Your task to perform on an android device: turn notification dots on Image 0: 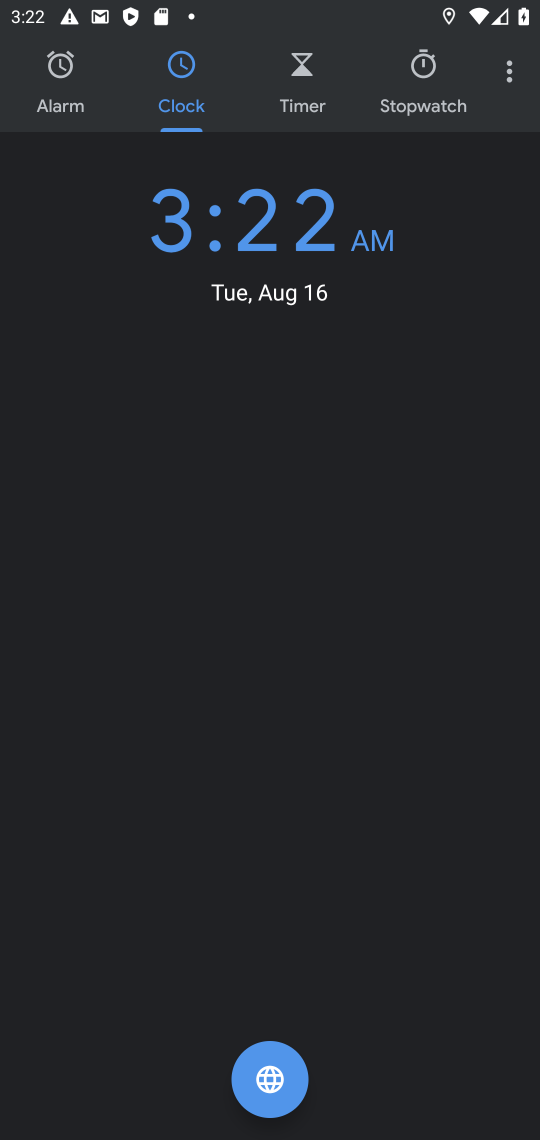
Step 0: press home button
Your task to perform on an android device: turn notification dots on Image 1: 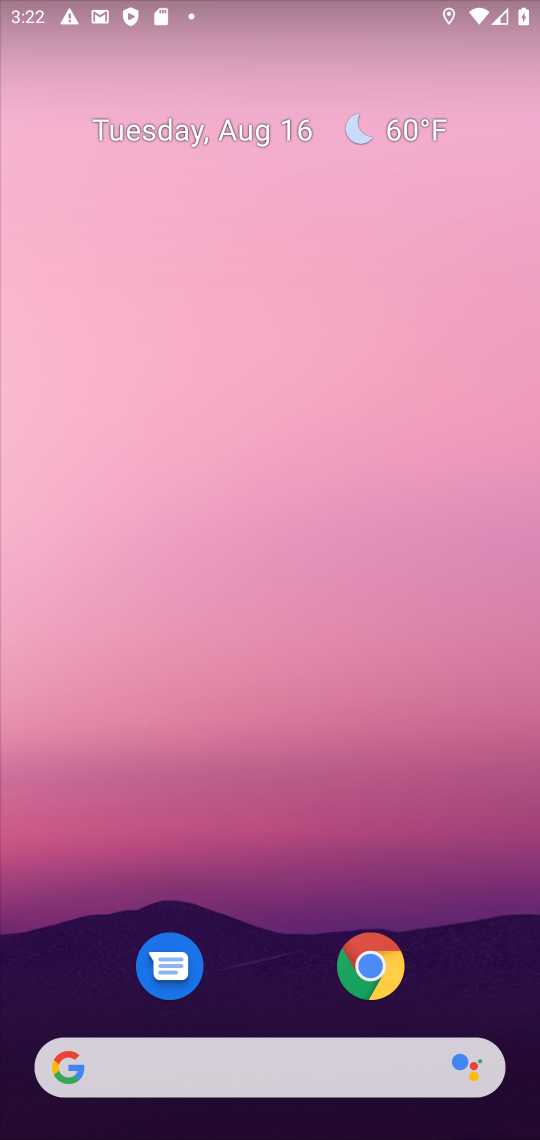
Step 1: drag from (50, 1118) to (536, 875)
Your task to perform on an android device: turn notification dots on Image 2: 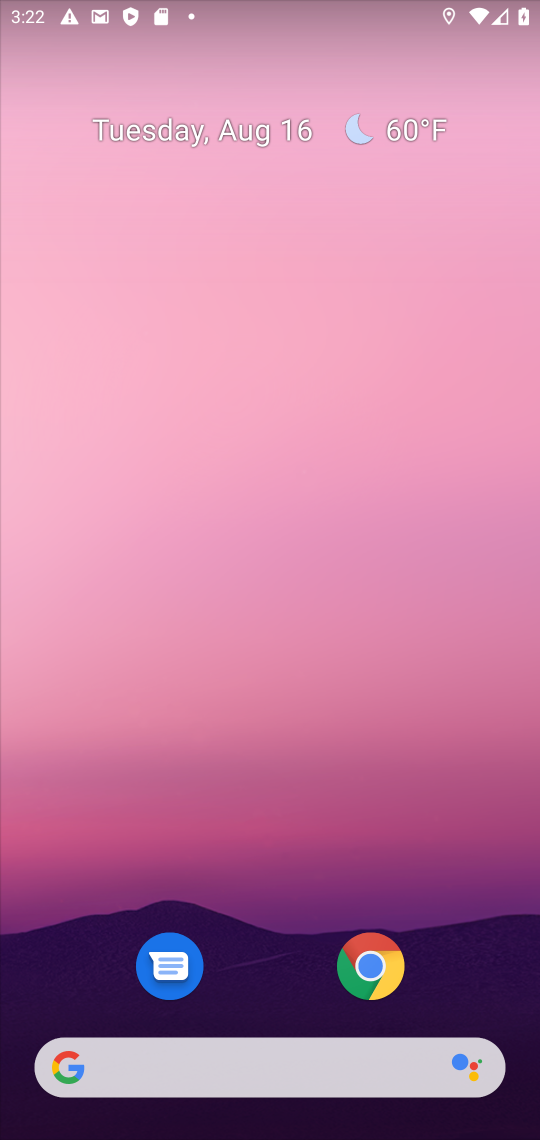
Step 2: drag from (16, 1105) to (356, 111)
Your task to perform on an android device: turn notification dots on Image 3: 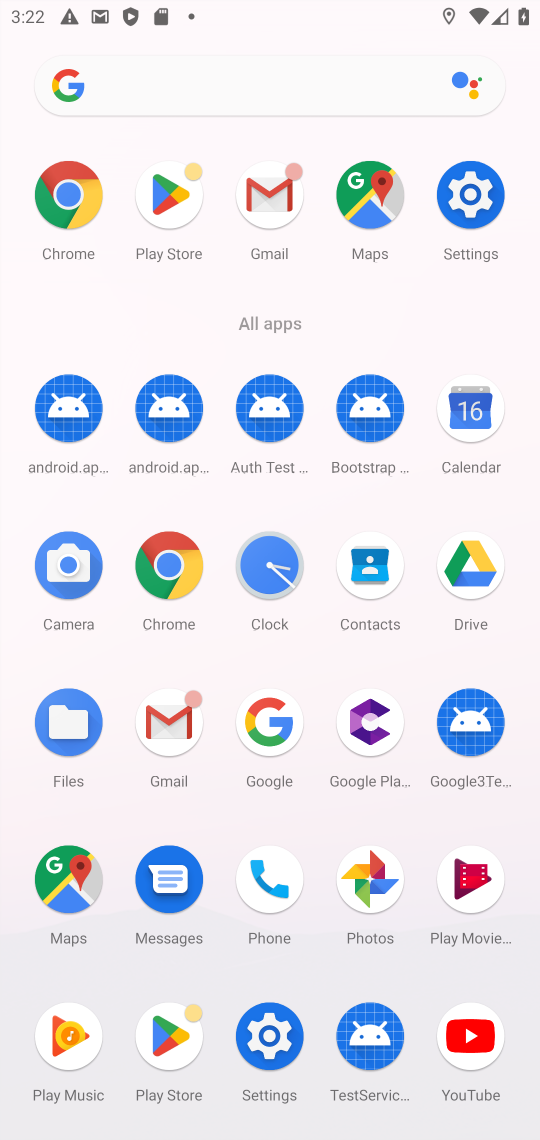
Step 3: click (268, 1032)
Your task to perform on an android device: turn notification dots on Image 4: 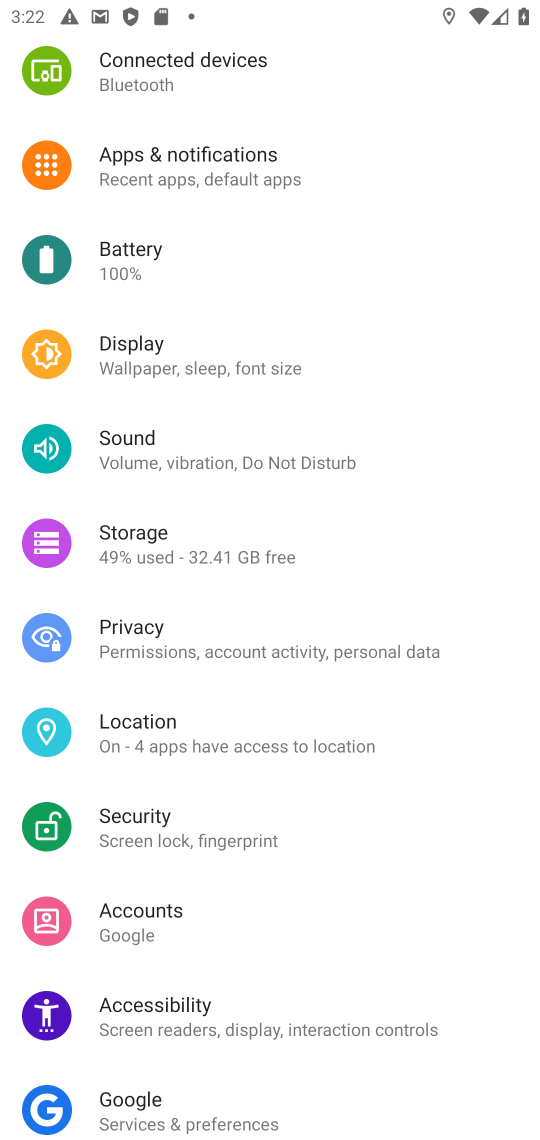
Step 4: click (191, 165)
Your task to perform on an android device: turn notification dots on Image 5: 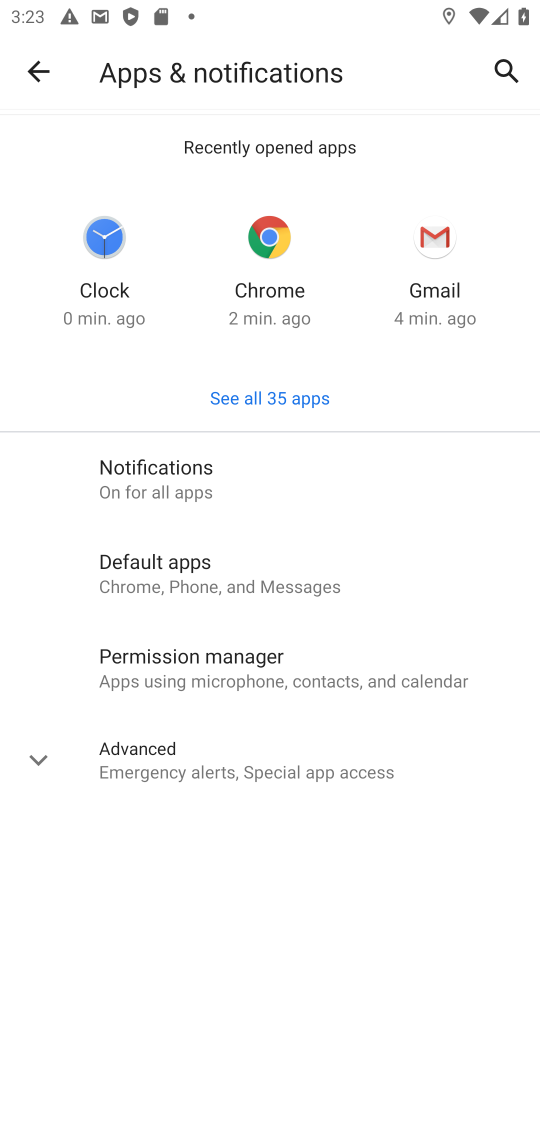
Step 5: click (224, 496)
Your task to perform on an android device: turn notification dots on Image 6: 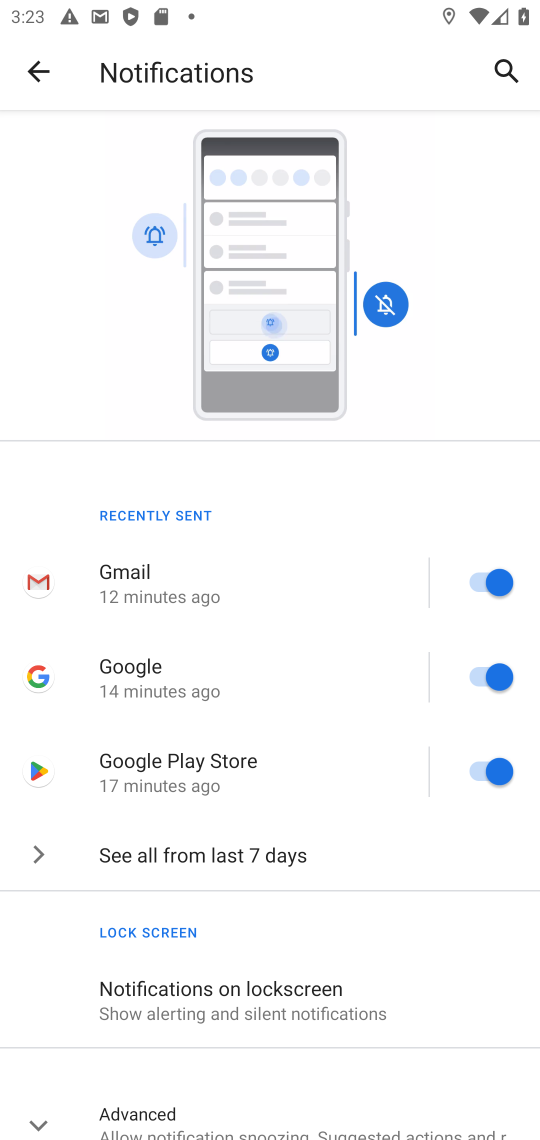
Step 6: drag from (371, 1081) to (396, 522)
Your task to perform on an android device: turn notification dots on Image 7: 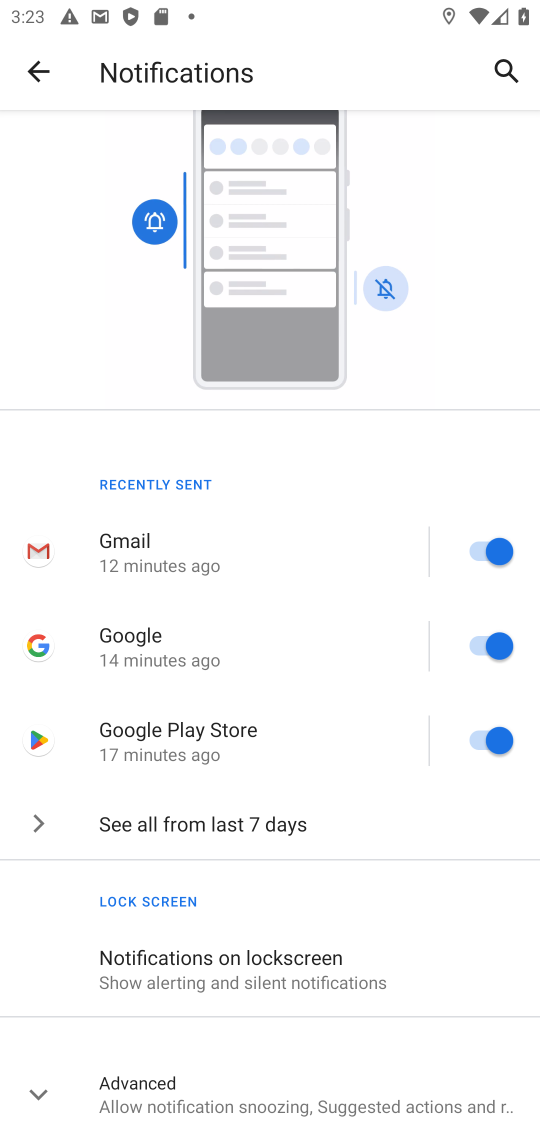
Step 7: click (228, 1111)
Your task to perform on an android device: turn notification dots on Image 8: 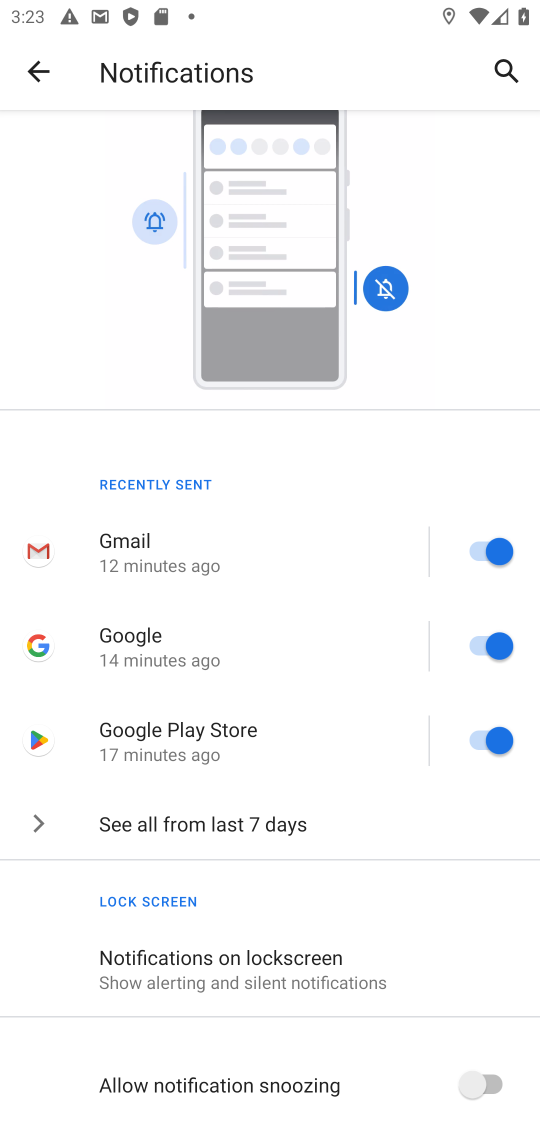
Step 8: task complete